Your task to perform on an android device: Do I have any events tomorrow? Image 0: 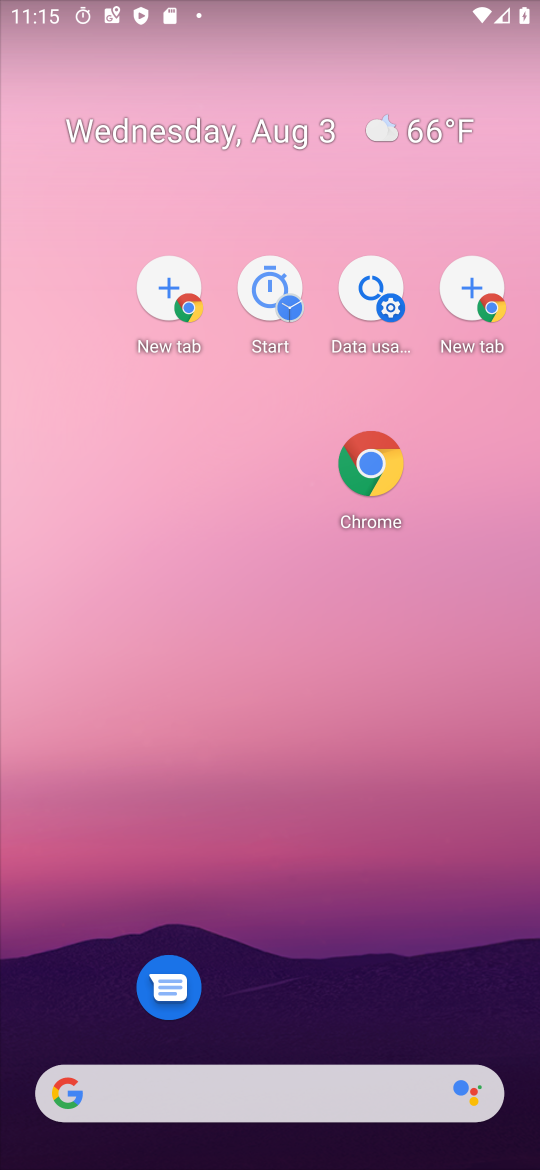
Step 0: click (293, 459)
Your task to perform on an android device: Do I have any events tomorrow? Image 1: 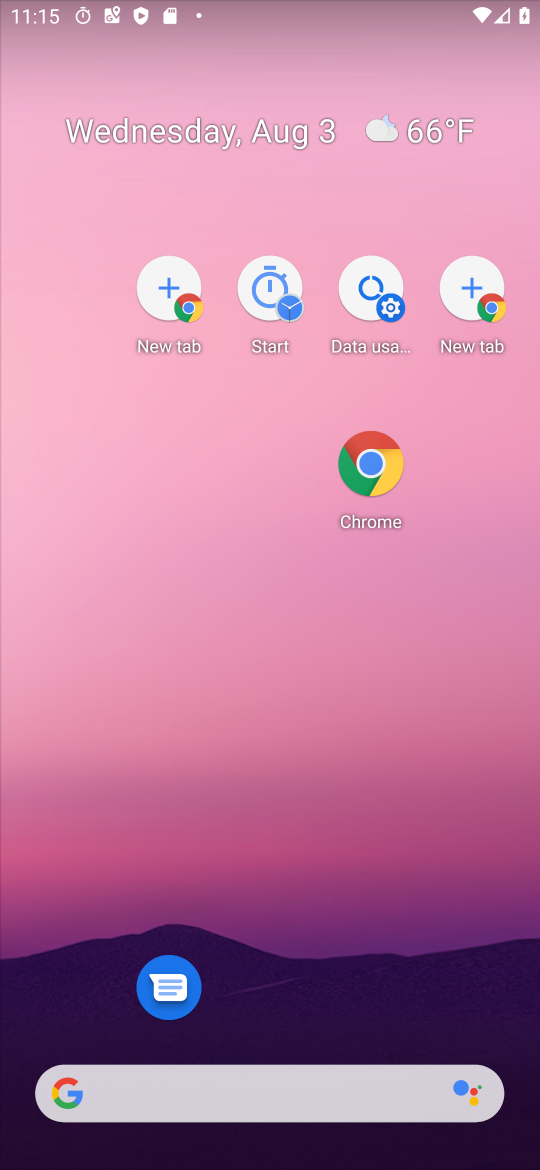
Step 1: drag from (321, 833) to (288, 491)
Your task to perform on an android device: Do I have any events tomorrow? Image 2: 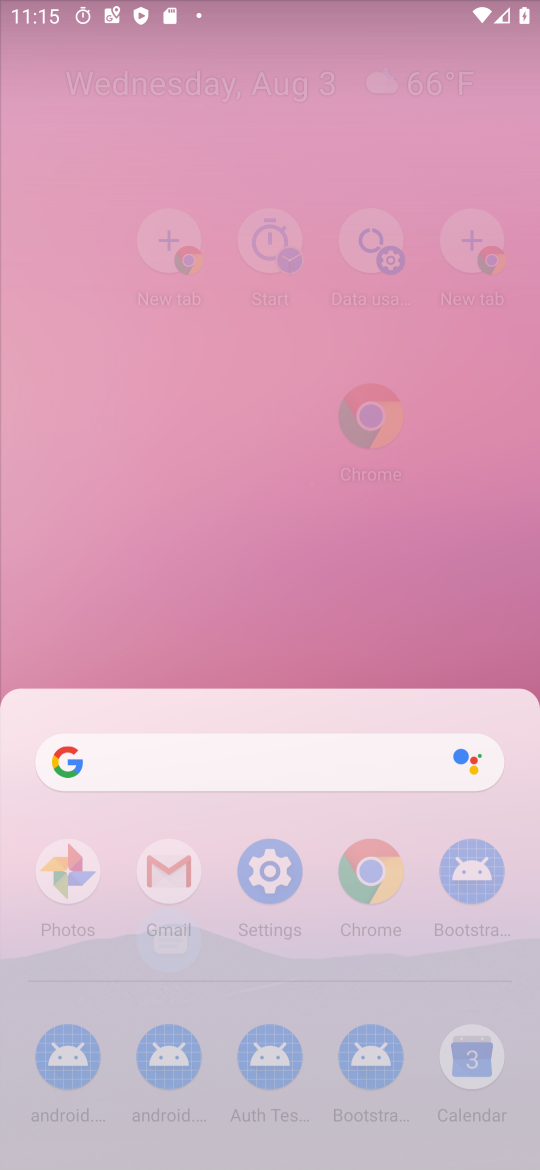
Step 2: drag from (287, 648) to (306, 152)
Your task to perform on an android device: Do I have any events tomorrow? Image 3: 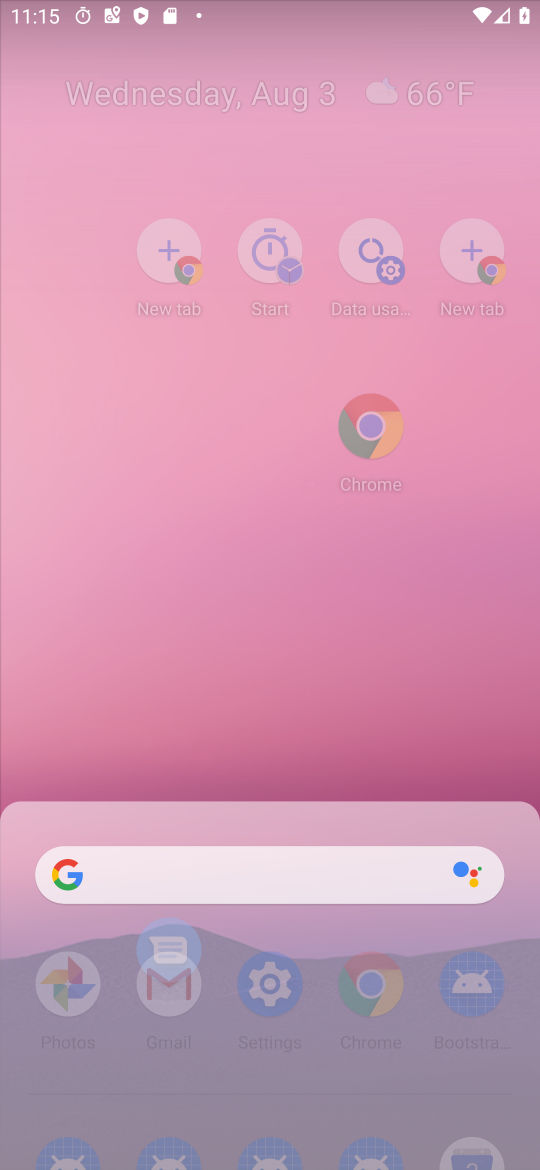
Step 3: drag from (320, 702) to (307, 65)
Your task to perform on an android device: Do I have any events tomorrow? Image 4: 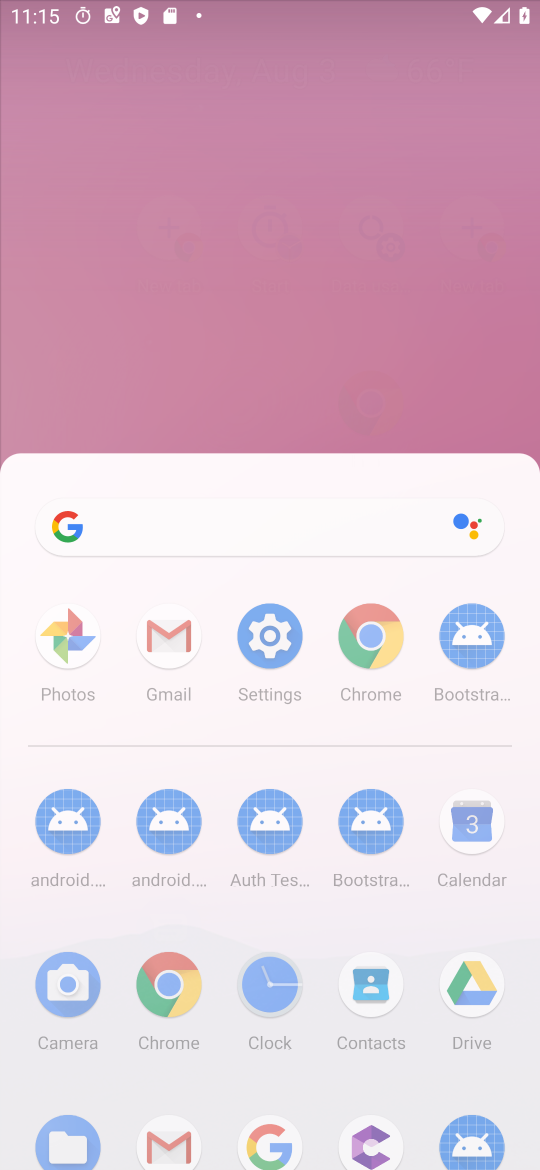
Step 4: drag from (315, 813) to (298, 129)
Your task to perform on an android device: Do I have any events tomorrow? Image 5: 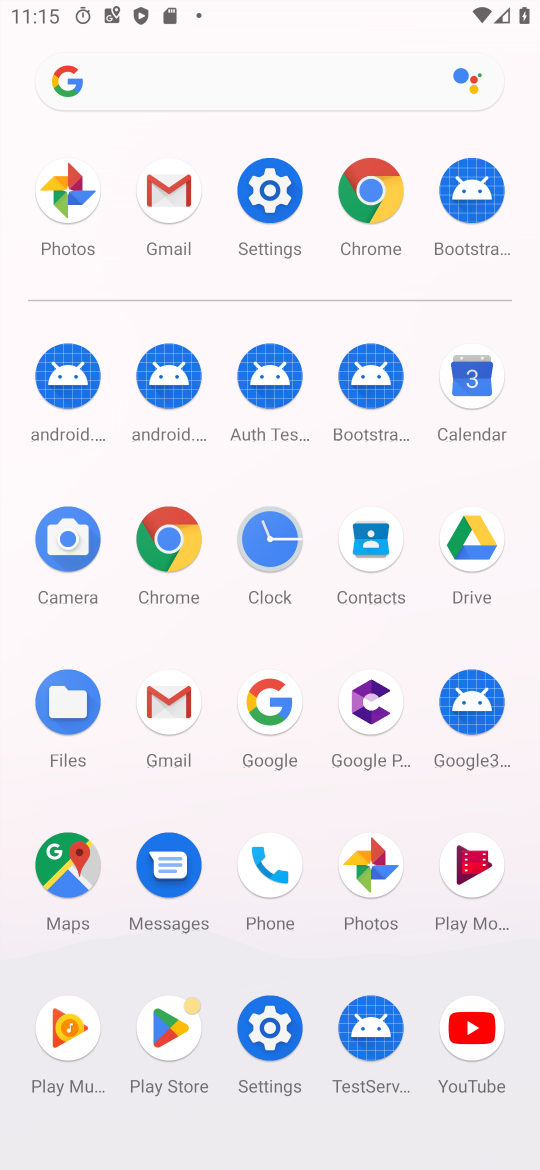
Step 5: click (458, 373)
Your task to perform on an android device: Do I have any events tomorrow? Image 6: 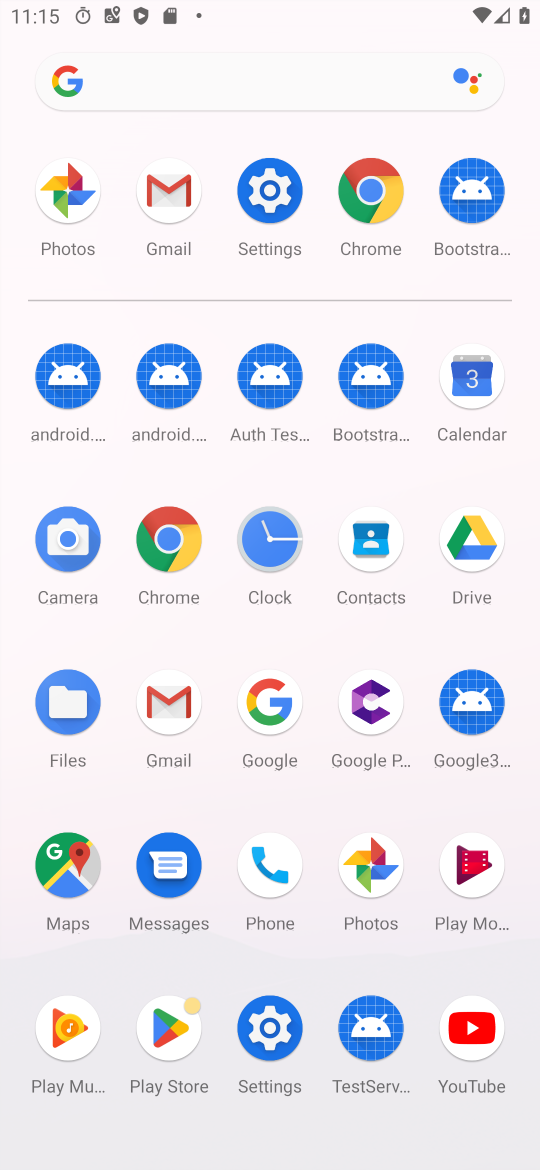
Step 6: click (461, 369)
Your task to perform on an android device: Do I have any events tomorrow? Image 7: 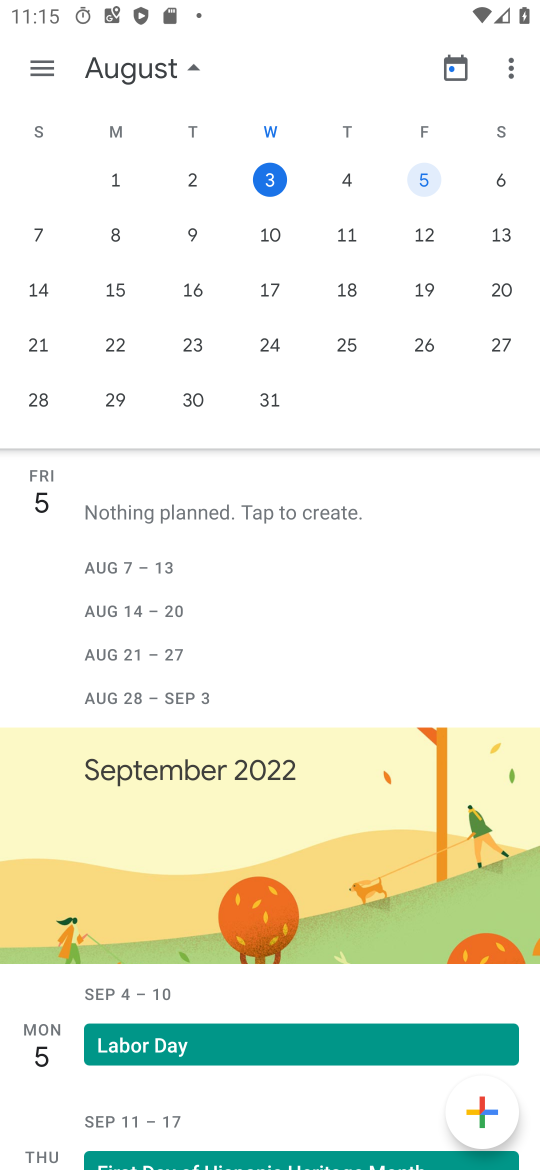
Step 7: click (420, 168)
Your task to perform on an android device: Do I have any events tomorrow? Image 8: 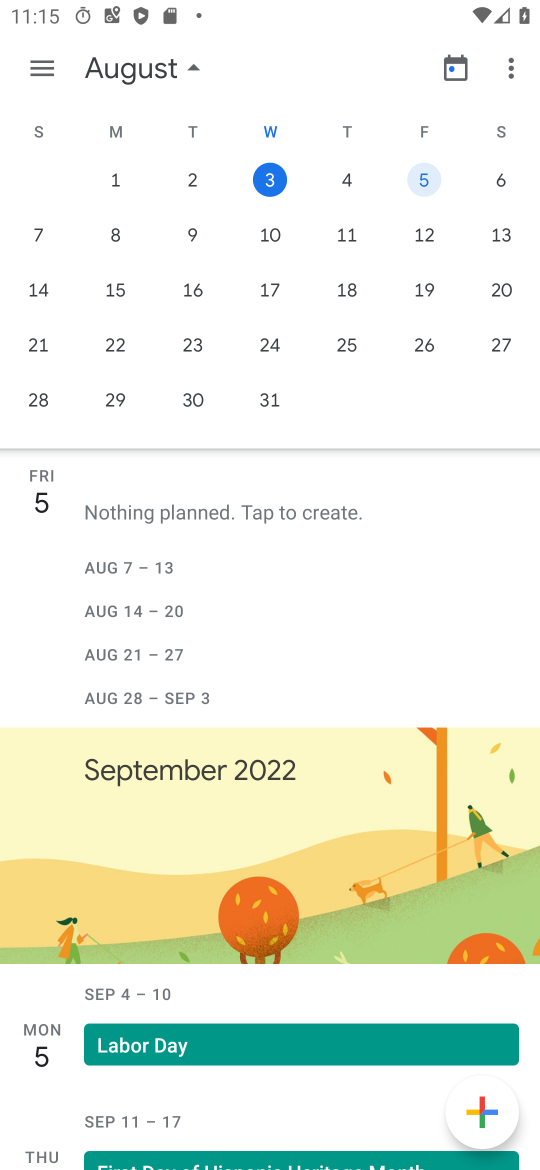
Step 8: click (420, 168)
Your task to perform on an android device: Do I have any events tomorrow? Image 9: 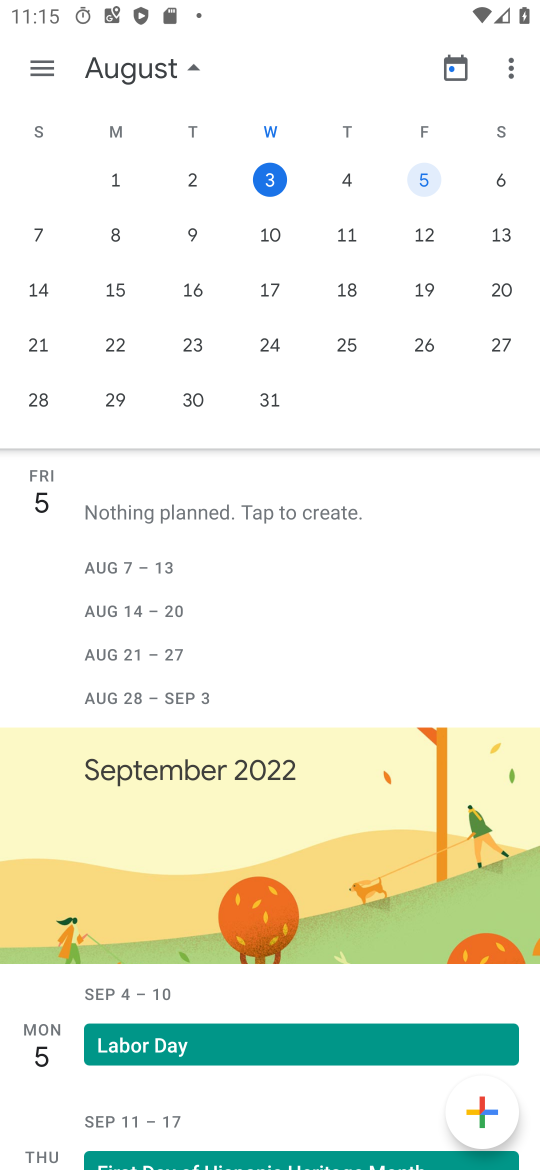
Step 9: click (421, 164)
Your task to perform on an android device: Do I have any events tomorrow? Image 10: 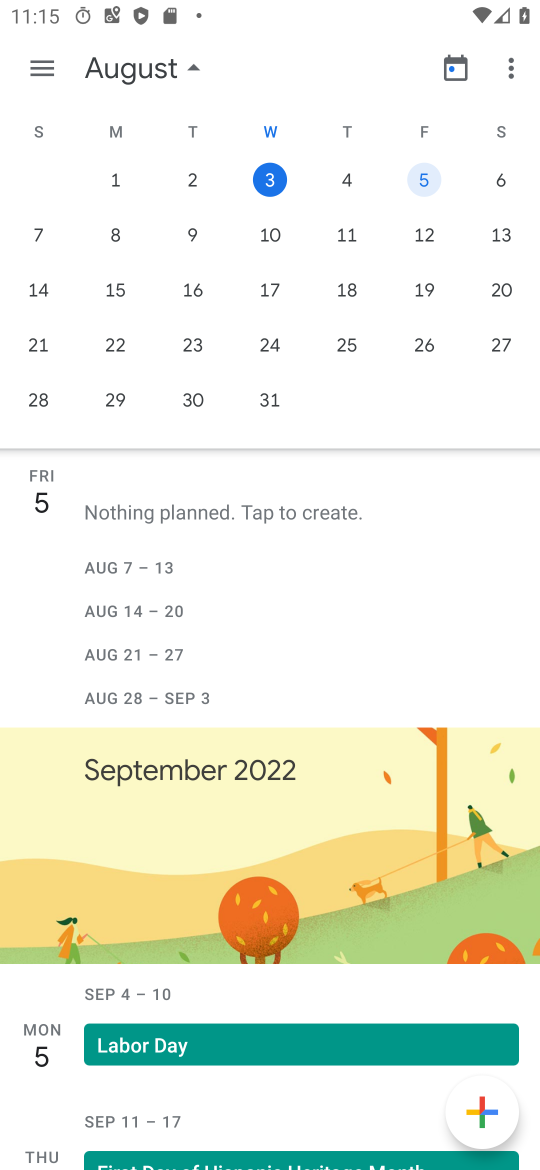
Step 10: task complete